Your task to perform on an android device: add a contact in the contacts app Image 0: 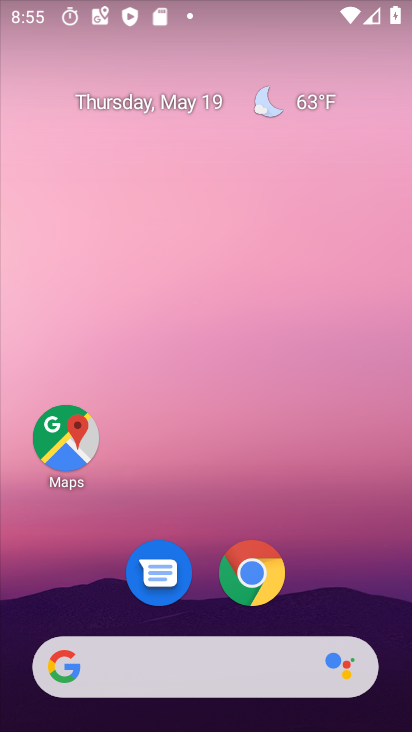
Step 0: drag from (366, 629) to (348, 7)
Your task to perform on an android device: add a contact in the contacts app Image 1: 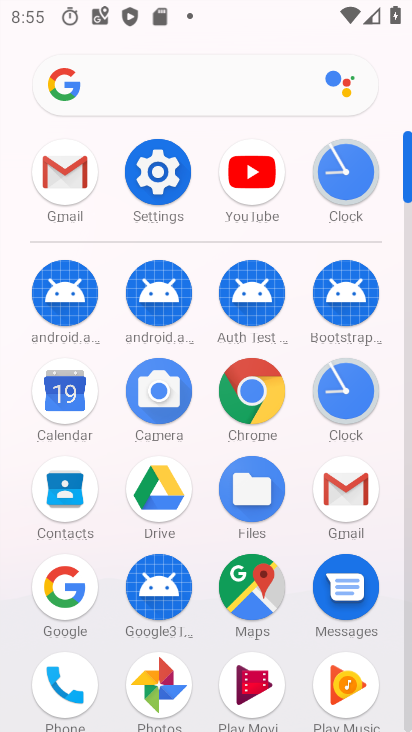
Step 1: click (63, 490)
Your task to perform on an android device: add a contact in the contacts app Image 2: 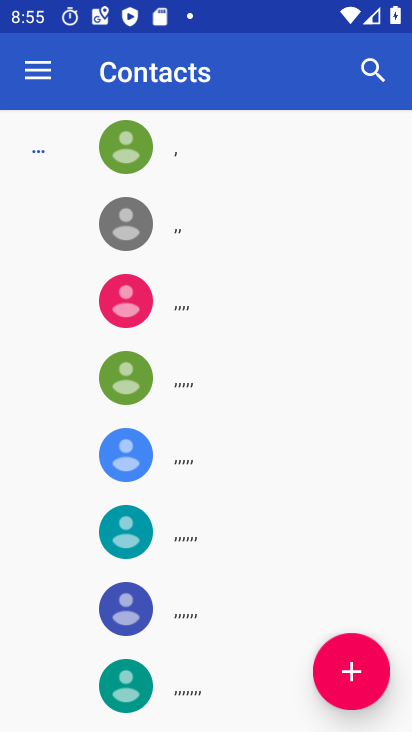
Step 2: click (350, 672)
Your task to perform on an android device: add a contact in the contacts app Image 3: 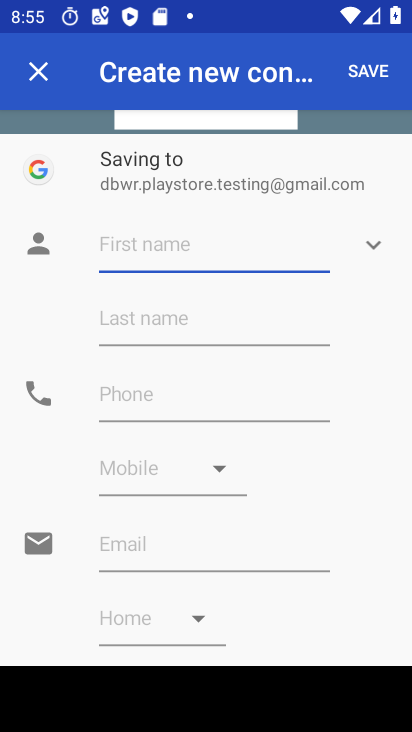
Step 3: click (159, 246)
Your task to perform on an android device: add a contact in the contacts app Image 4: 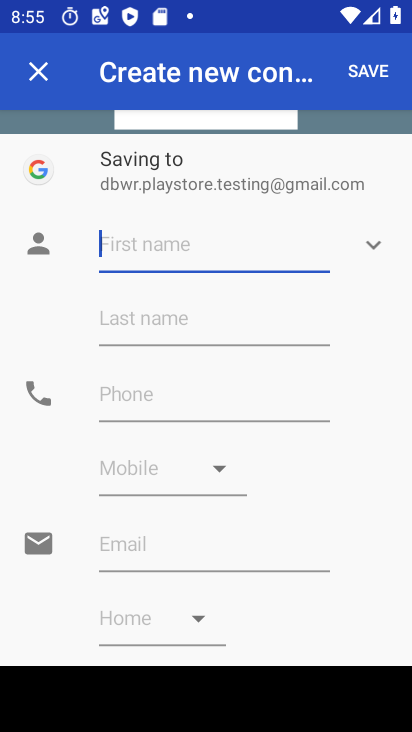
Step 4: type "hira"
Your task to perform on an android device: add a contact in the contacts app Image 5: 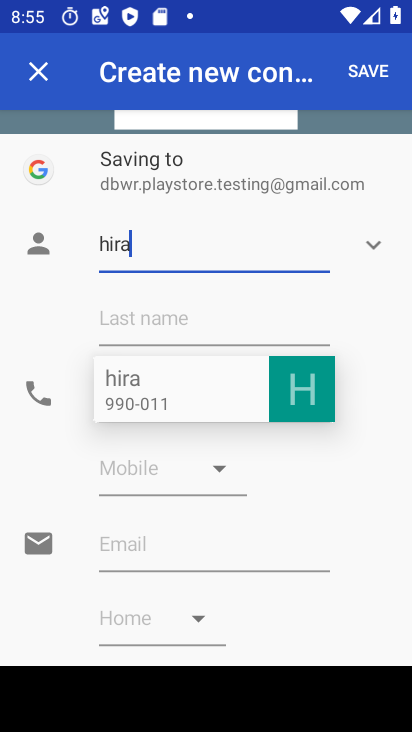
Step 5: click (196, 311)
Your task to perform on an android device: add a contact in the contacts app Image 6: 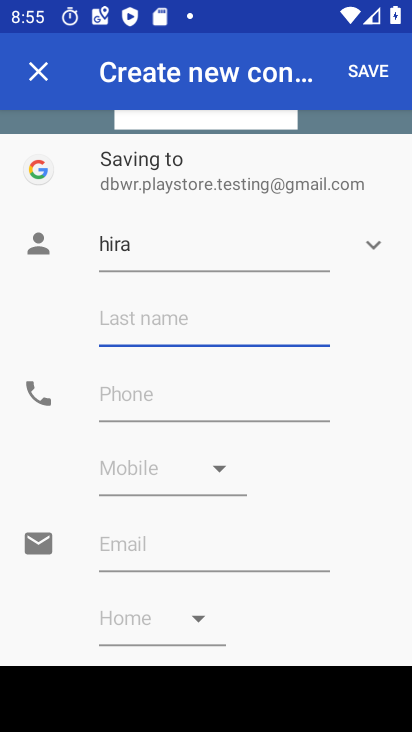
Step 6: click (231, 384)
Your task to perform on an android device: add a contact in the contacts app Image 7: 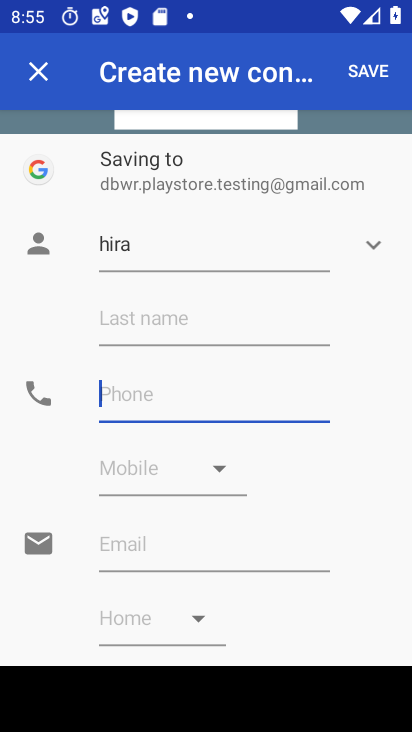
Step 7: type "84746453546"
Your task to perform on an android device: add a contact in the contacts app Image 8: 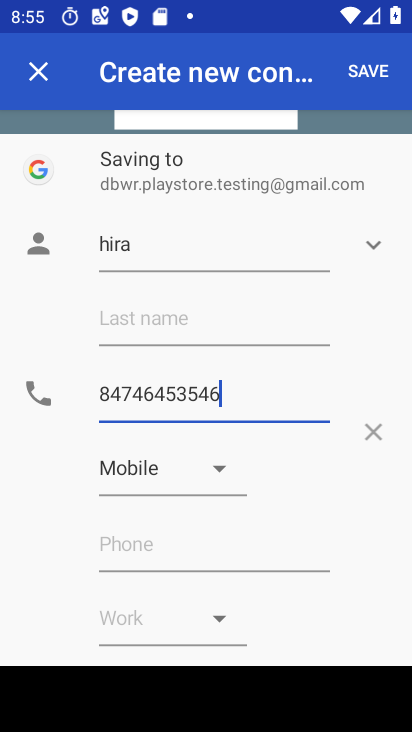
Step 8: click (370, 76)
Your task to perform on an android device: add a contact in the contacts app Image 9: 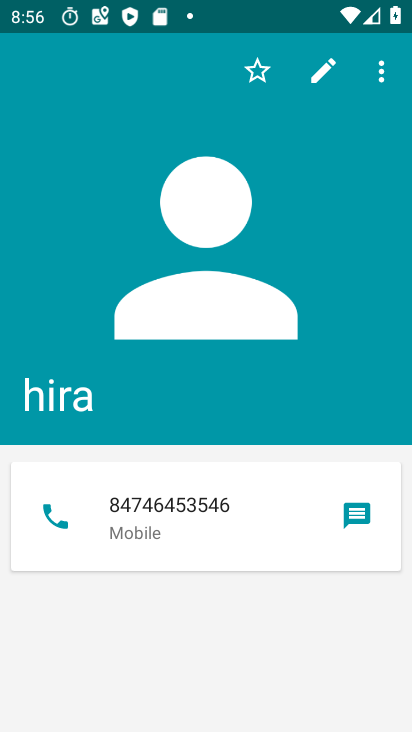
Step 9: task complete